Your task to perform on an android device: change alarm snooze length Image 0: 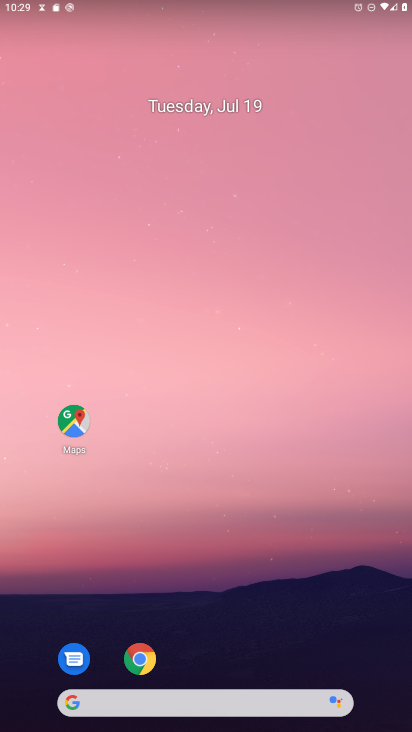
Step 0: drag from (208, 643) to (216, 230)
Your task to perform on an android device: change alarm snooze length Image 1: 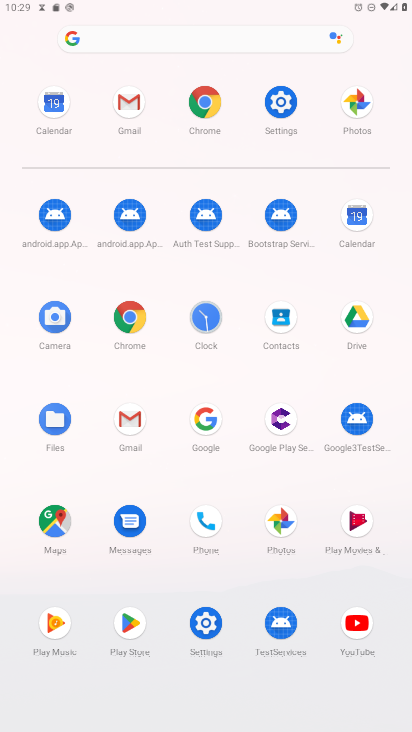
Step 1: click (210, 322)
Your task to perform on an android device: change alarm snooze length Image 2: 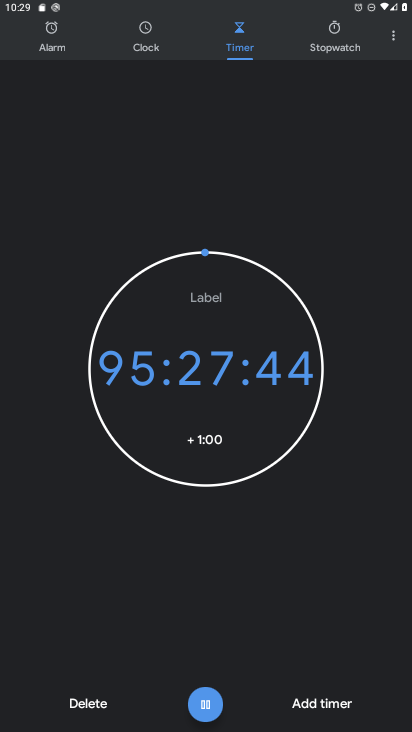
Step 2: click (401, 22)
Your task to perform on an android device: change alarm snooze length Image 3: 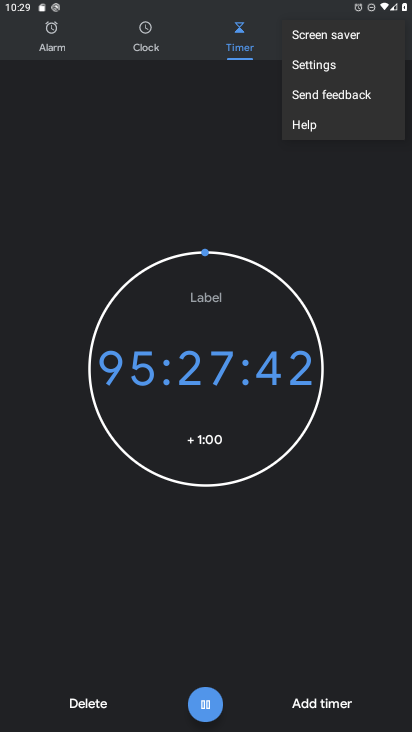
Step 3: click (336, 65)
Your task to perform on an android device: change alarm snooze length Image 4: 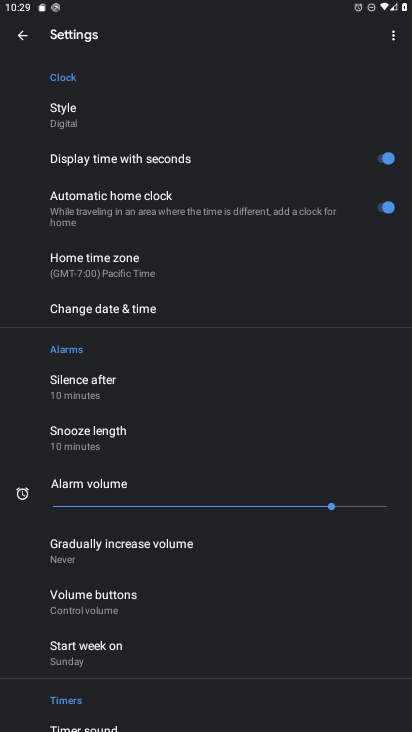
Step 4: drag from (133, 631) to (170, 107)
Your task to perform on an android device: change alarm snooze length Image 5: 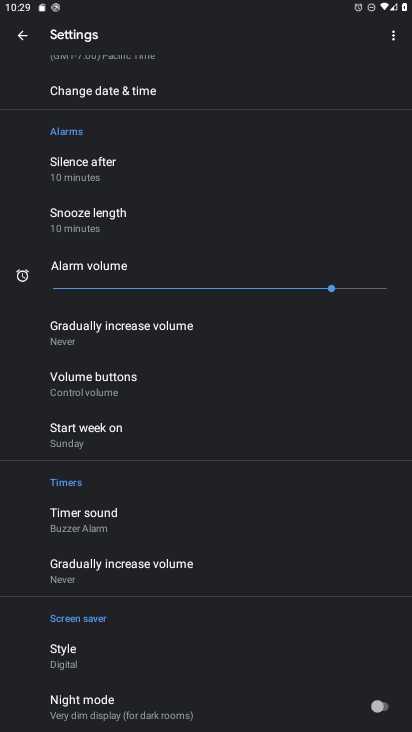
Step 5: click (117, 218)
Your task to perform on an android device: change alarm snooze length Image 6: 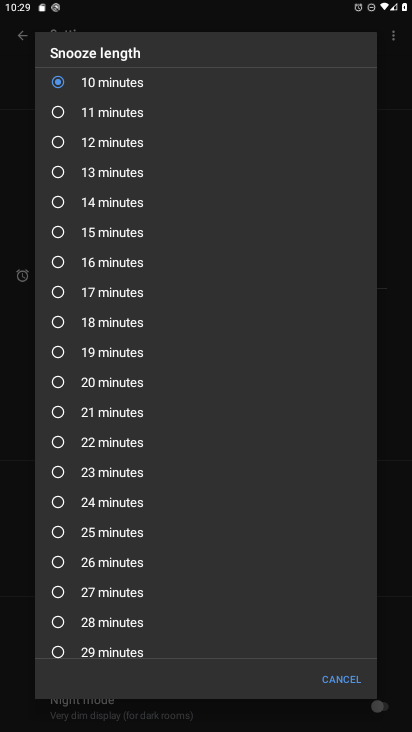
Step 6: click (95, 591)
Your task to perform on an android device: change alarm snooze length Image 7: 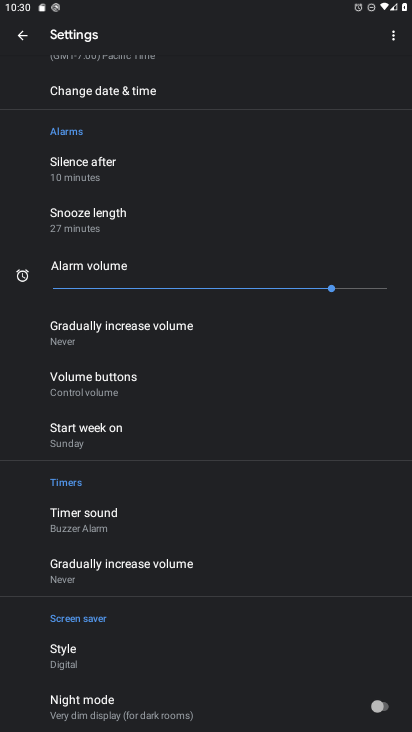
Step 7: task complete